Your task to perform on an android device: What's on my calendar tomorrow? Image 0: 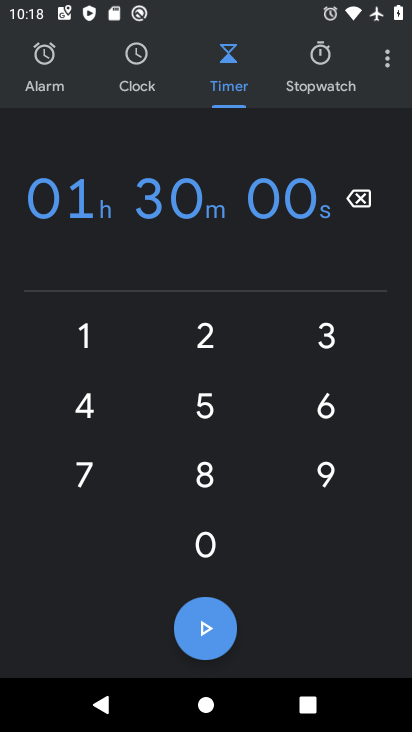
Step 0: press home button
Your task to perform on an android device: What's on my calendar tomorrow? Image 1: 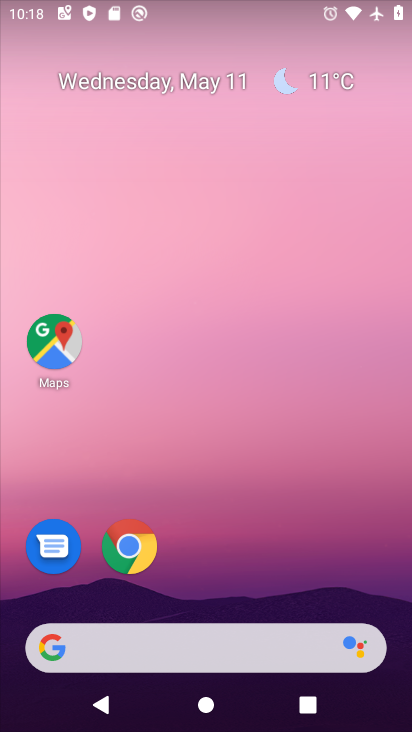
Step 1: drag from (386, 596) to (306, 90)
Your task to perform on an android device: What's on my calendar tomorrow? Image 2: 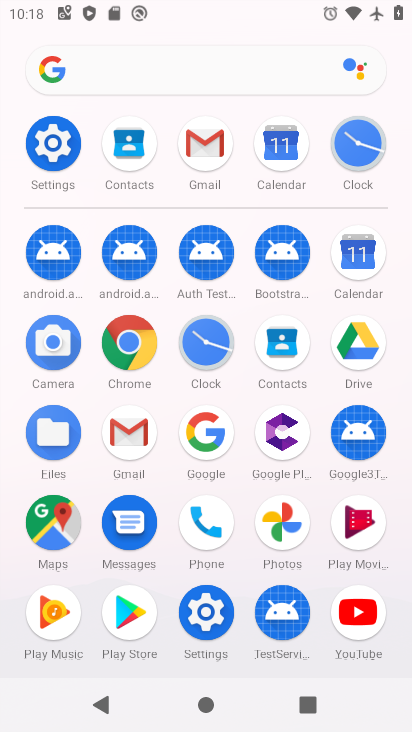
Step 2: click (356, 250)
Your task to perform on an android device: What's on my calendar tomorrow? Image 3: 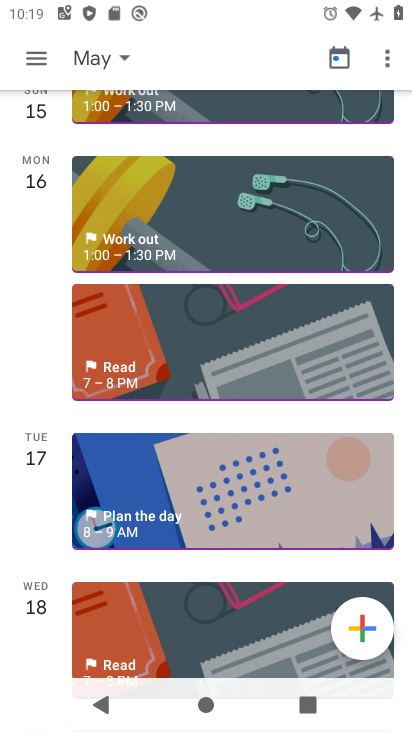
Step 3: click (46, 56)
Your task to perform on an android device: What's on my calendar tomorrow? Image 4: 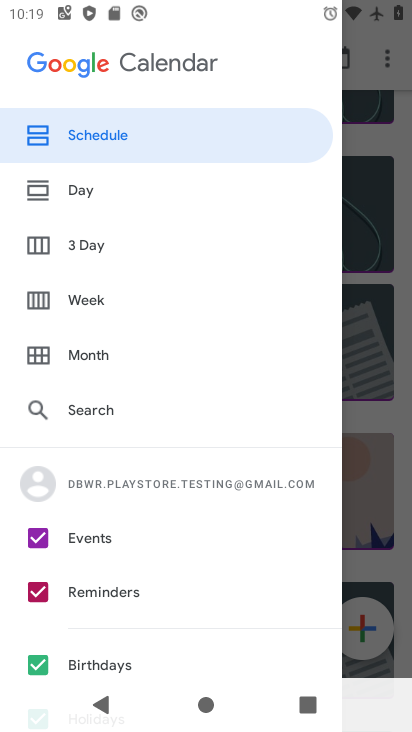
Step 4: click (83, 195)
Your task to perform on an android device: What's on my calendar tomorrow? Image 5: 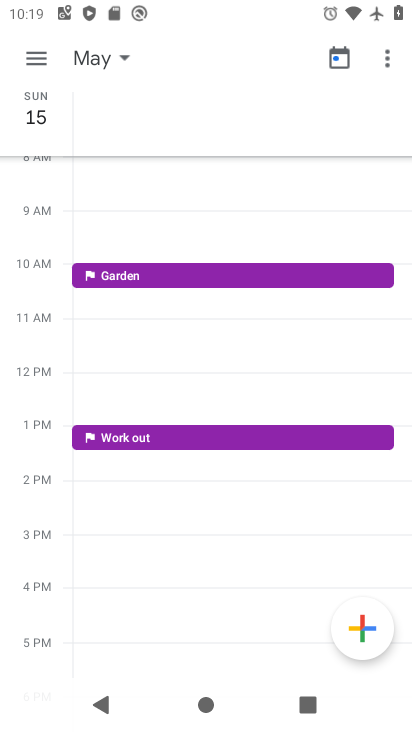
Step 5: click (121, 57)
Your task to perform on an android device: What's on my calendar tomorrow? Image 6: 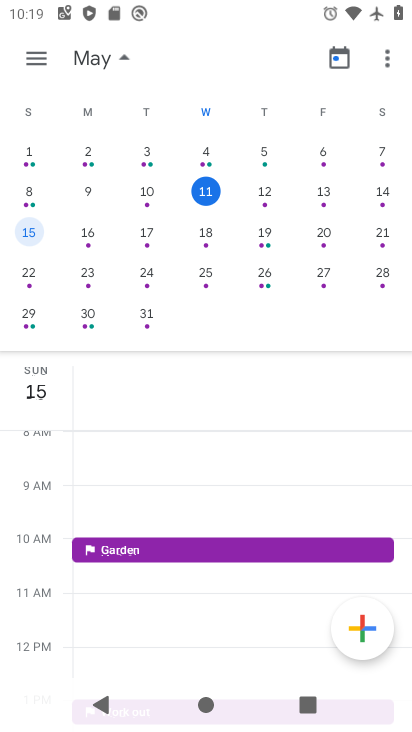
Step 6: click (261, 187)
Your task to perform on an android device: What's on my calendar tomorrow? Image 7: 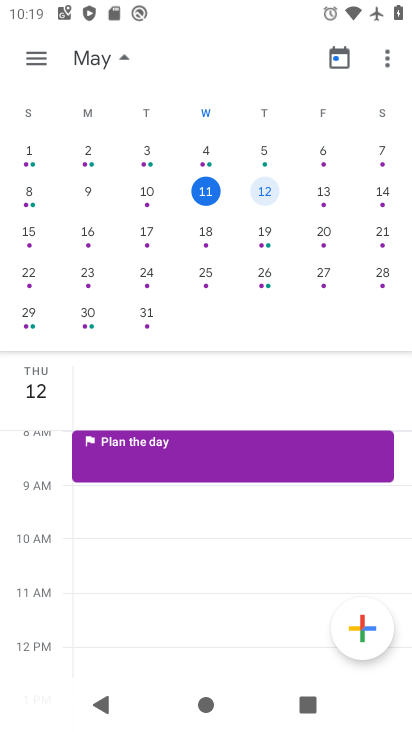
Step 7: task complete